Your task to perform on an android device: Open Amazon Image 0: 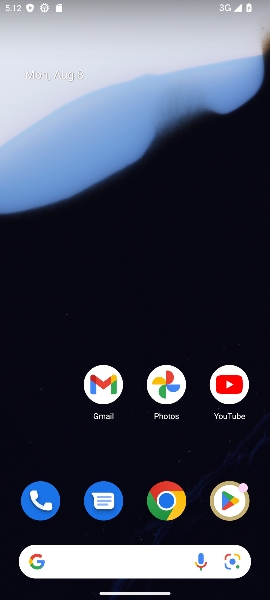
Step 0: click (164, 507)
Your task to perform on an android device: Open Amazon Image 1: 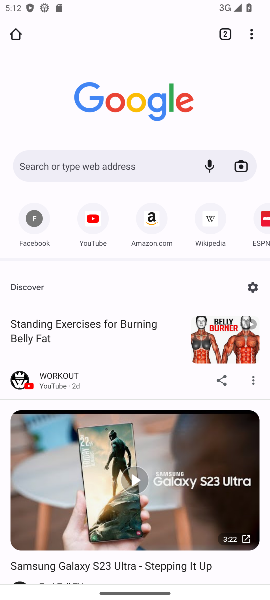
Step 1: click (54, 156)
Your task to perform on an android device: Open Amazon Image 2: 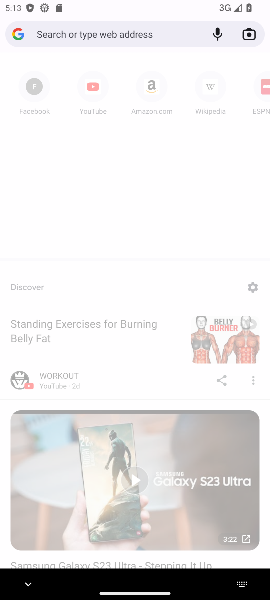
Step 2: type "Amazon"
Your task to perform on an android device: Open Amazon Image 3: 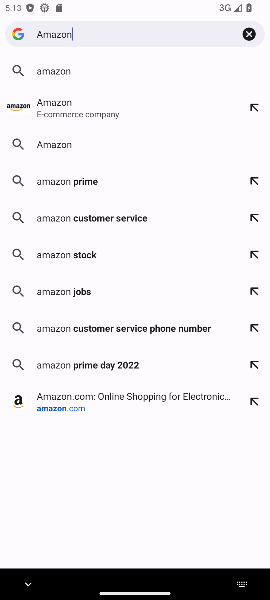
Step 3: click (82, 110)
Your task to perform on an android device: Open Amazon Image 4: 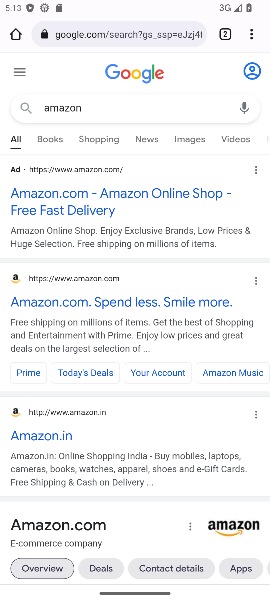
Step 4: task complete